Your task to perform on an android device: stop showing notifications on the lock screen Image 0: 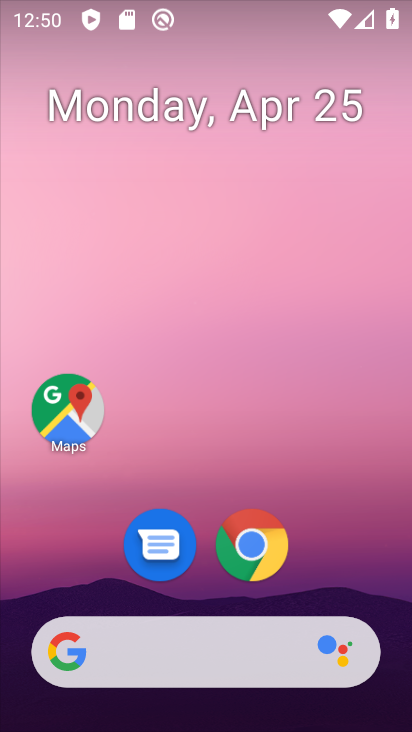
Step 0: drag from (341, 554) to (331, 159)
Your task to perform on an android device: stop showing notifications on the lock screen Image 1: 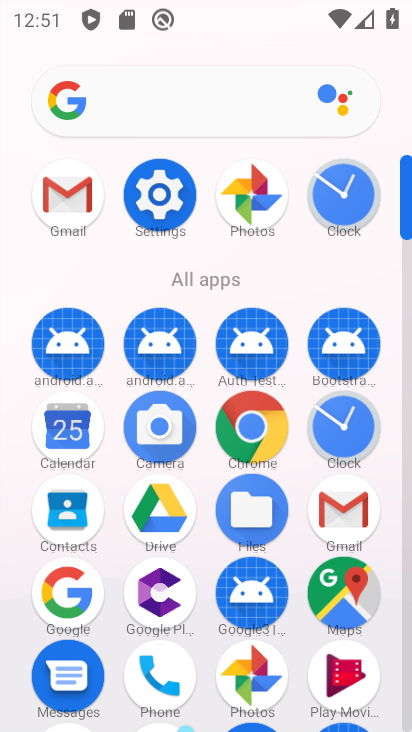
Step 1: click (171, 205)
Your task to perform on an android device: stop showing notifications on the lock screen Image 2: 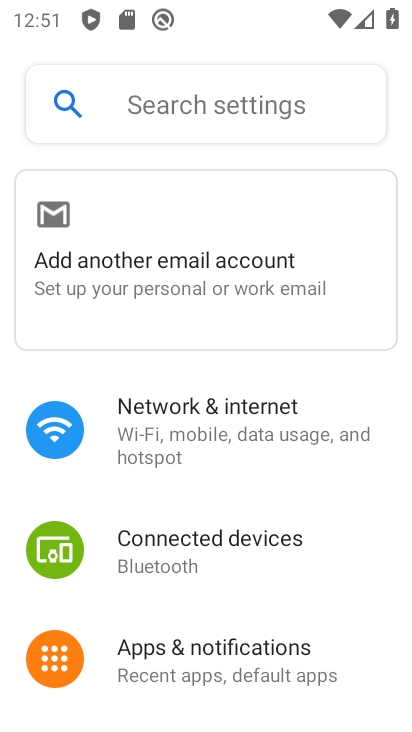
Step 2: click (151, 659)
Your task to perform on an android device: stop showing notifications on the lock screen Image 3: 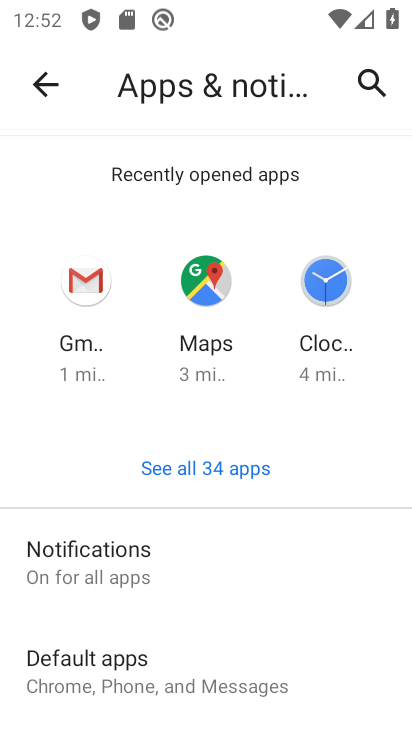
Step 3: drag from (245, 633) to (241, 294)
Your task to perform on an android device: stop showing notifications on the lock screen Image 4: 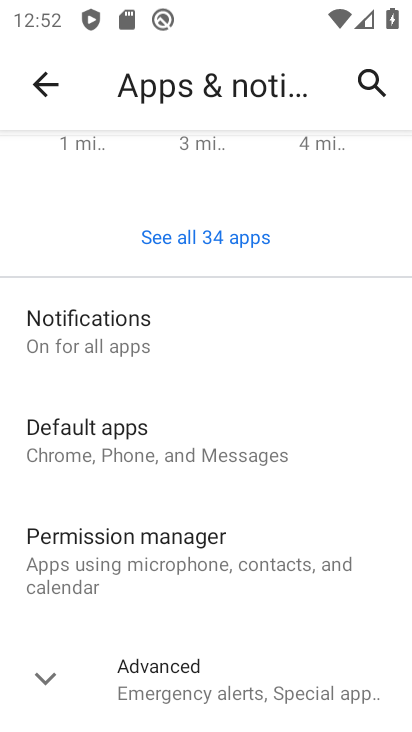
Step 4: click (147, 335)
Your task to perform on an android device: stop showing notifications on the lock screen Image 5: 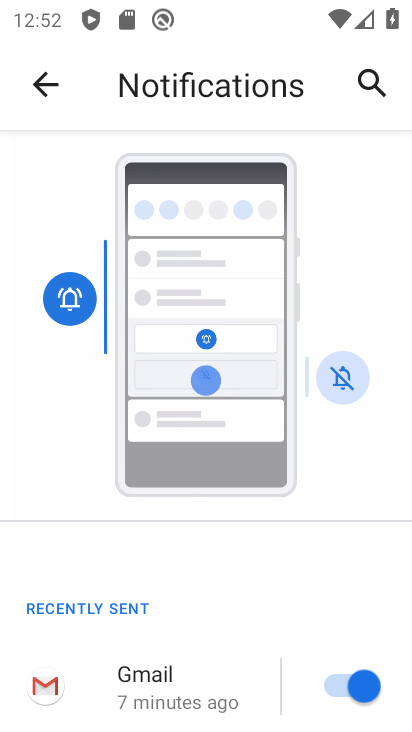
Step 5: drag from (225, 552) to (245, 161)
Your task to perform on an android device: stop showing notifications on the lock screen Image 6: 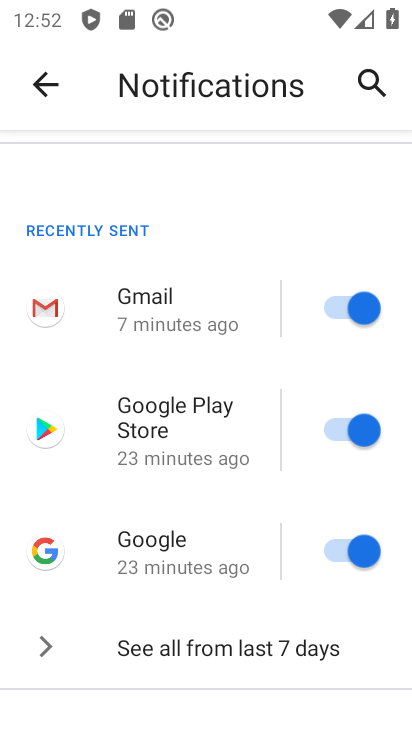
Step 6: drag from (246, 592) to (264, 212)
Your task to perform on an android device: stop showing notifications on the lock screen Image 7: 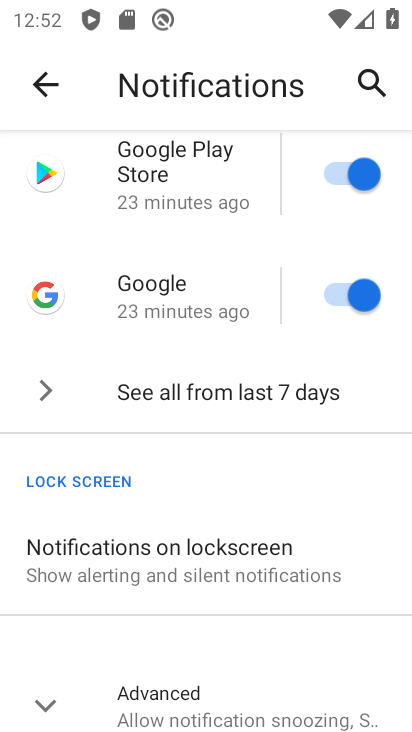
Step 7: click (211, 556)
Your task to perform on an android device: stop showing notifications on the lock screen Image 8: 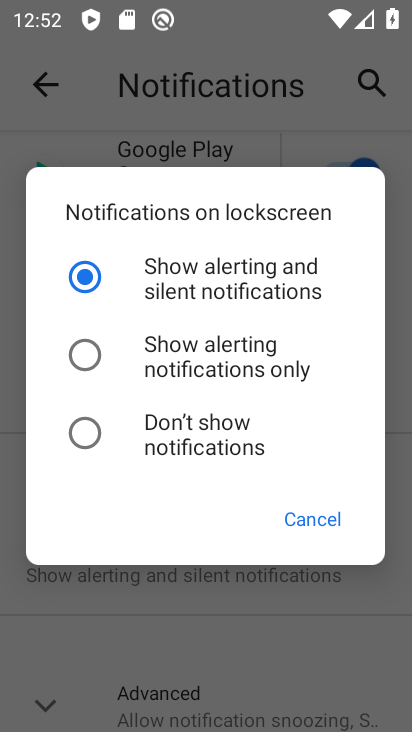
Step 8: click (90, 434)
Your task to perform on an android device: stop showing notifications on the lock screen Image 9: 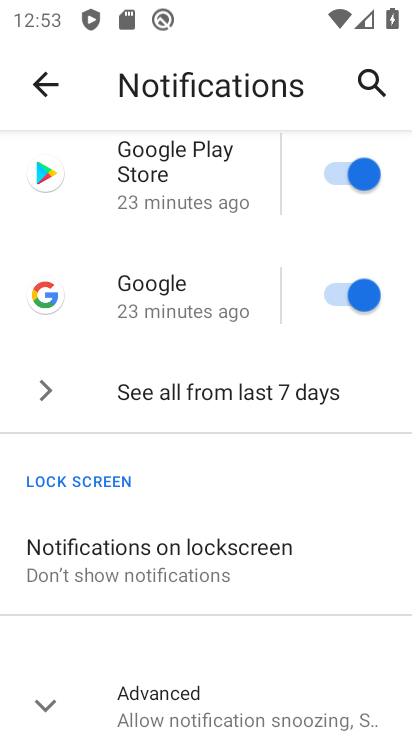
Step 9: task complete